Your task to perform on an android device: Go to Google Image 0: 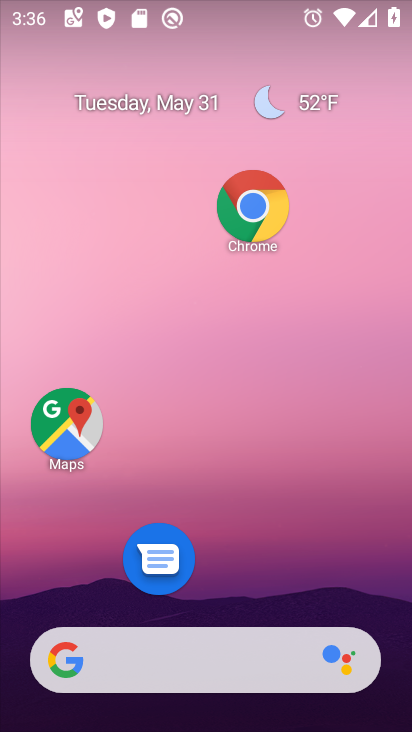
Step 0: drag from (216, 587) to (218, 146)
Your task to perform on an android device: Go to Google Image 1: 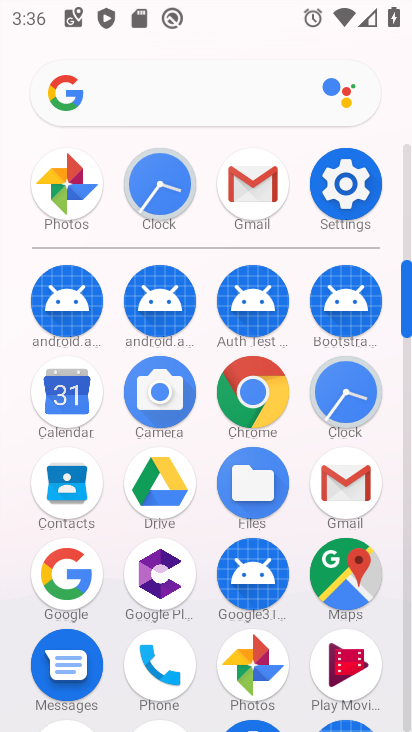
Step 1: click (85, 572)
Your task to perform on an android device: Go to Google Image 2: 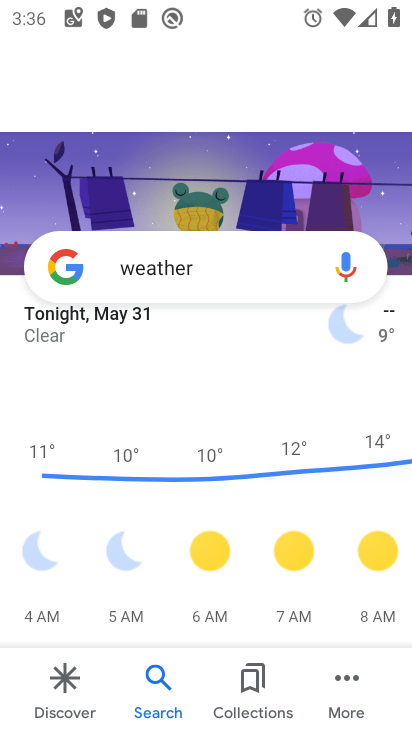
Step 2: task complete